Your task to perform on an android device: Open the Play Movies app and select the watchlist tab. Image 0: 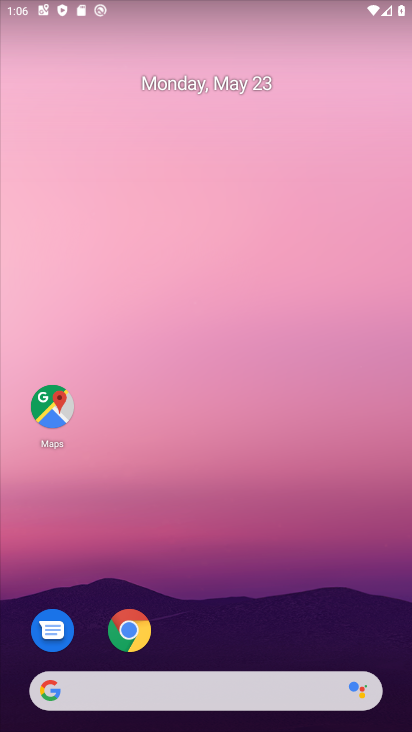
Step 0: drag from (337, 615) to (343, 337)
Your task to perform on an android device: Open the Play Movies app and select the watchlist tab. Image 1: 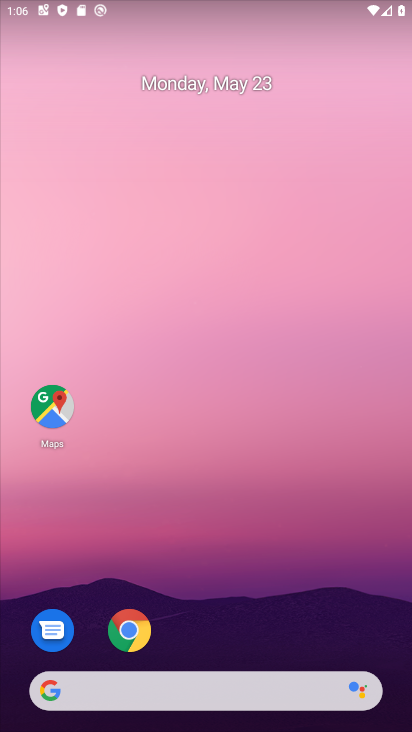
Step 1: drag from (315, 615) to (332, 236)
Your task to perform on an android device: Open the Play Movies app and select the watchlist tab. Image 2: 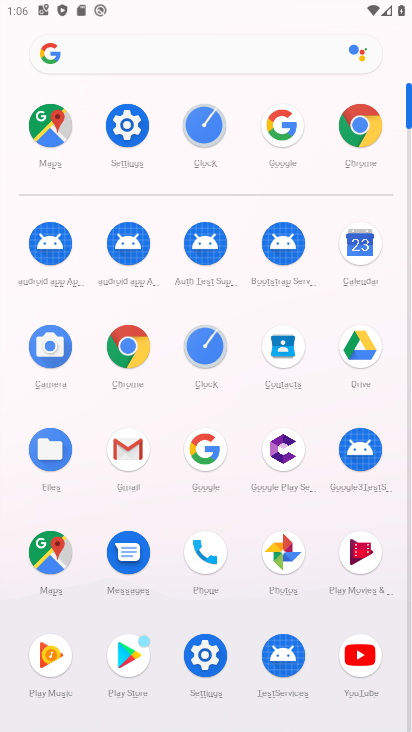
Step 2: click (356, 572)
Your task to perform on an android device: Open the Play Movies app and select the watchlist tab. Image 3: 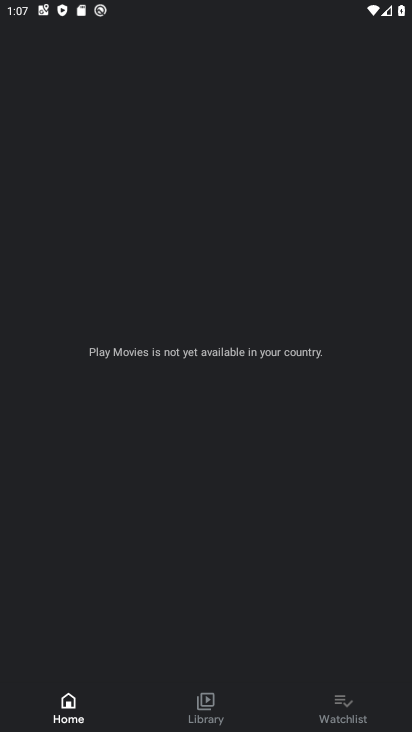
Step 3: click (341, 717)
Your task to perform on an android device: Open the Play Movies app and select the watchlist tab. Image 4: 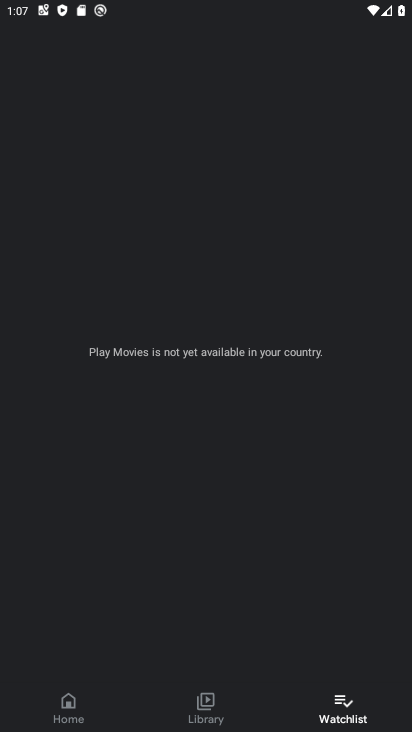
Step 4: task complete